Your task to perform on an android device: check google app version Image 0: 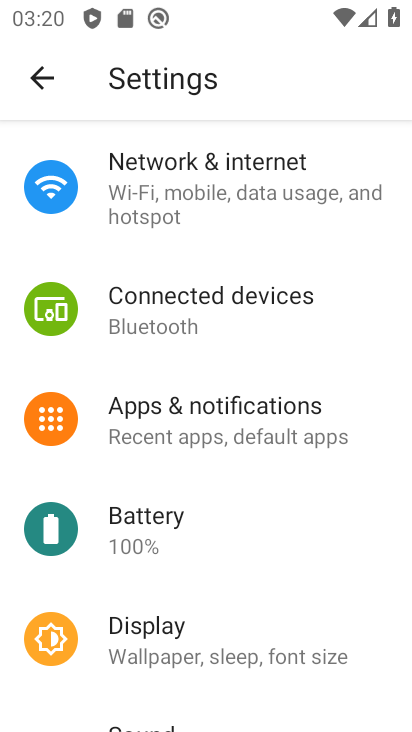
Step 0: drag from (274, 554) to (335, 191)
Your task to perform on an android device: check google app version Image 1: 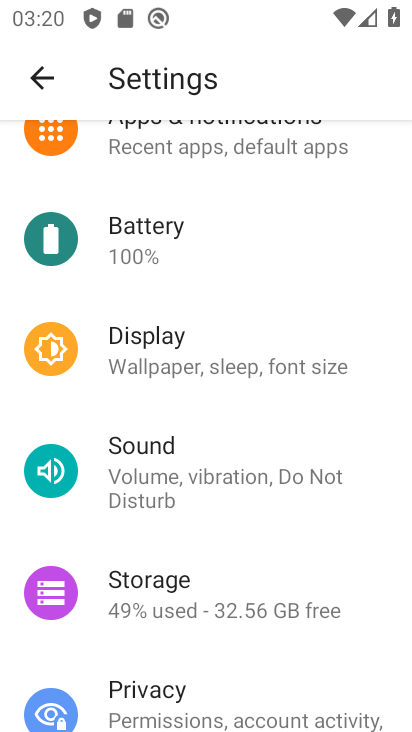
Step 1: press home button
Your task to perform on an android device: check google app version Image 2: 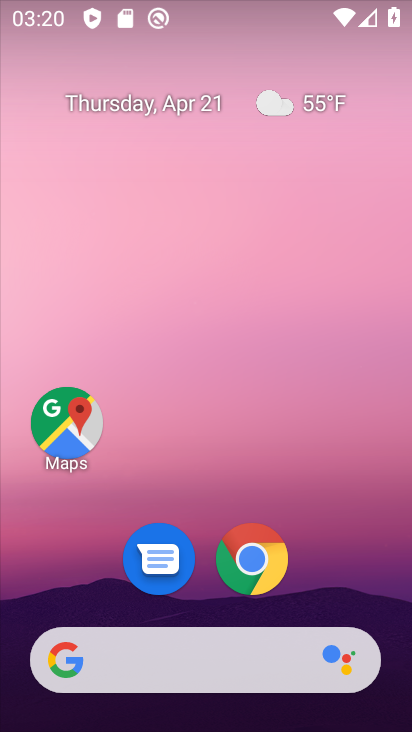
Step 2: drag from (237, 473) to (270, 0)
Your task to perform on an android device: check google app version Image 3: 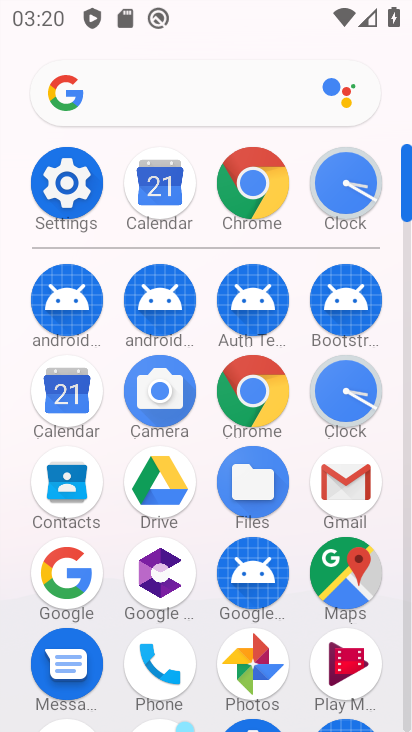
Step 3: click (64, 575)
Your task to perform on an android device: check google app version Image 4: 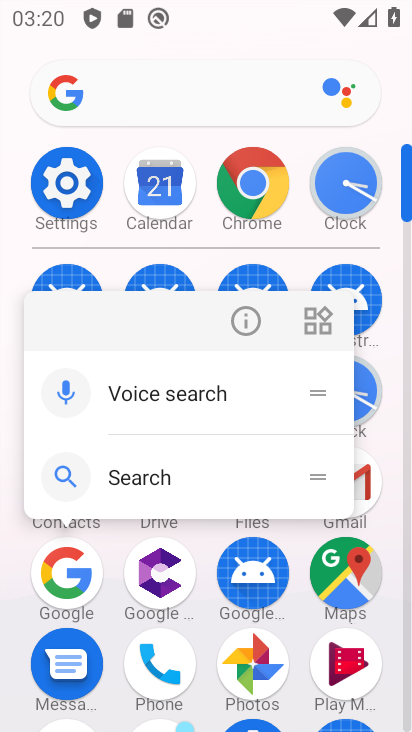
Step 4: click (255, 327)
Your task to perform on an android device: check google app version Image 5: 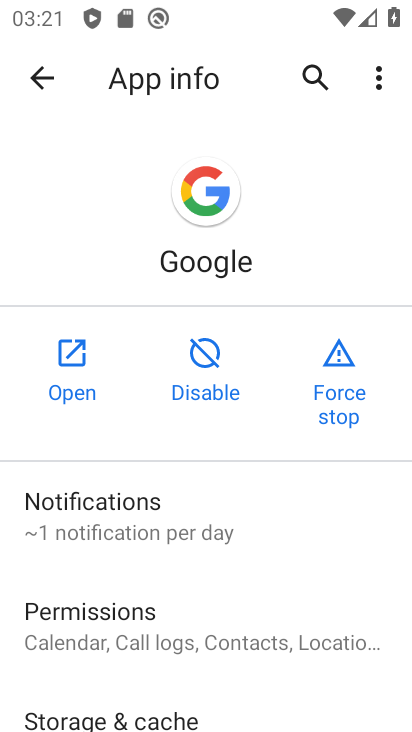
Step 5: drag from (189, 547) to (245, 107)
Your task to perform on an android device: check google app version Image 6: 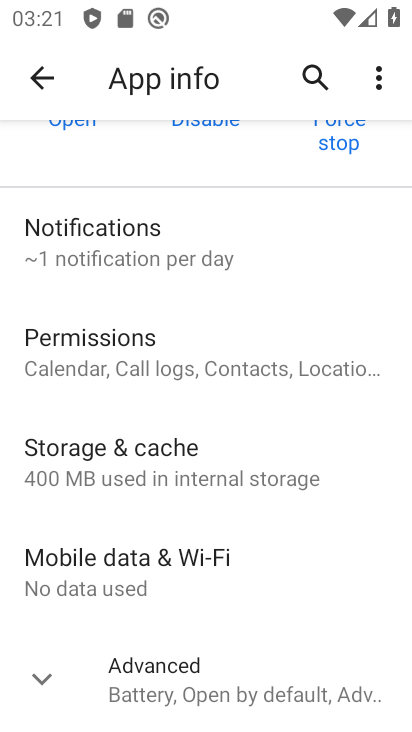
Step 6: click (157, 668)
Your task to perform on an android device: check google app version Image 7: 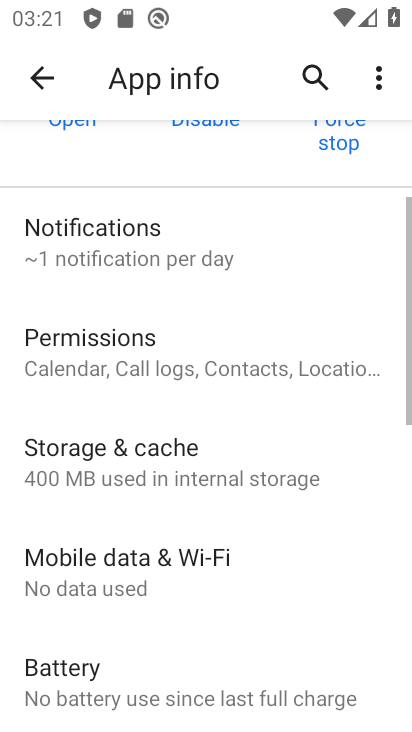
Step 7: task complete